Your task to perform on an android device: uninstall "The Home Depot" Image 0: 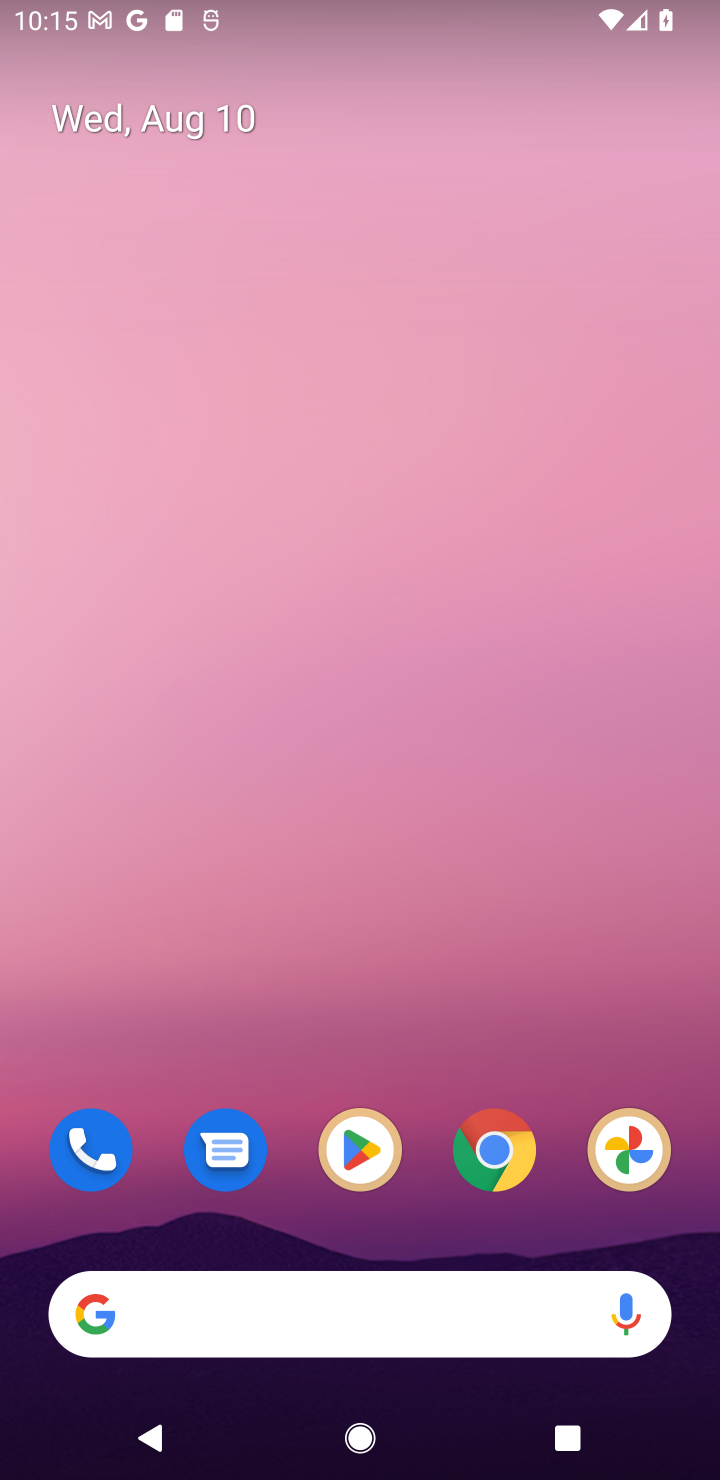
Step 0: click (360, 1137)
Your task to perform on an android device: uninstall "The Home Depot" Image 1: 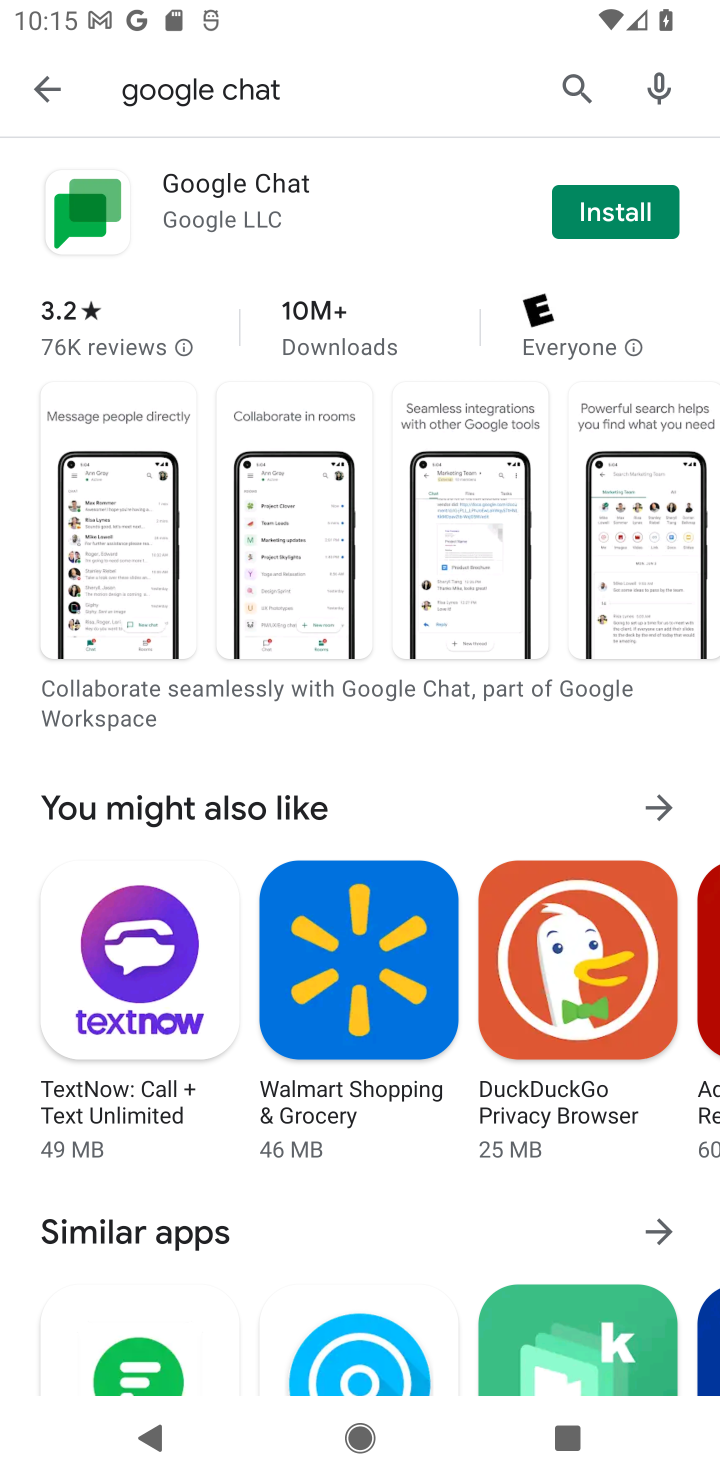
Step 1: click (569, 71)
Your task to perform on an android device: uninstall "The Home Depot" Image 2: 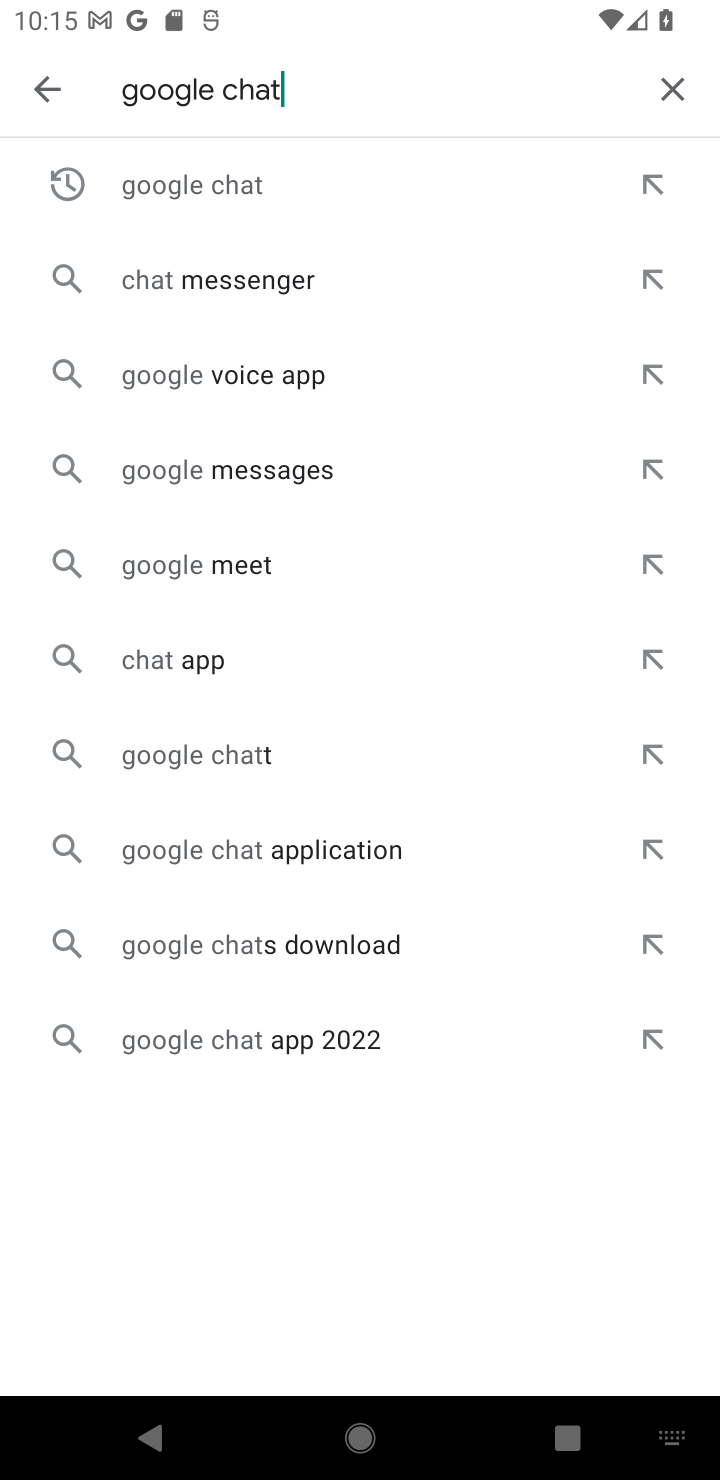
Step 2: click (653, 89)
Your task to perform on an android device: uninstall "The Home Depot" Image 3: 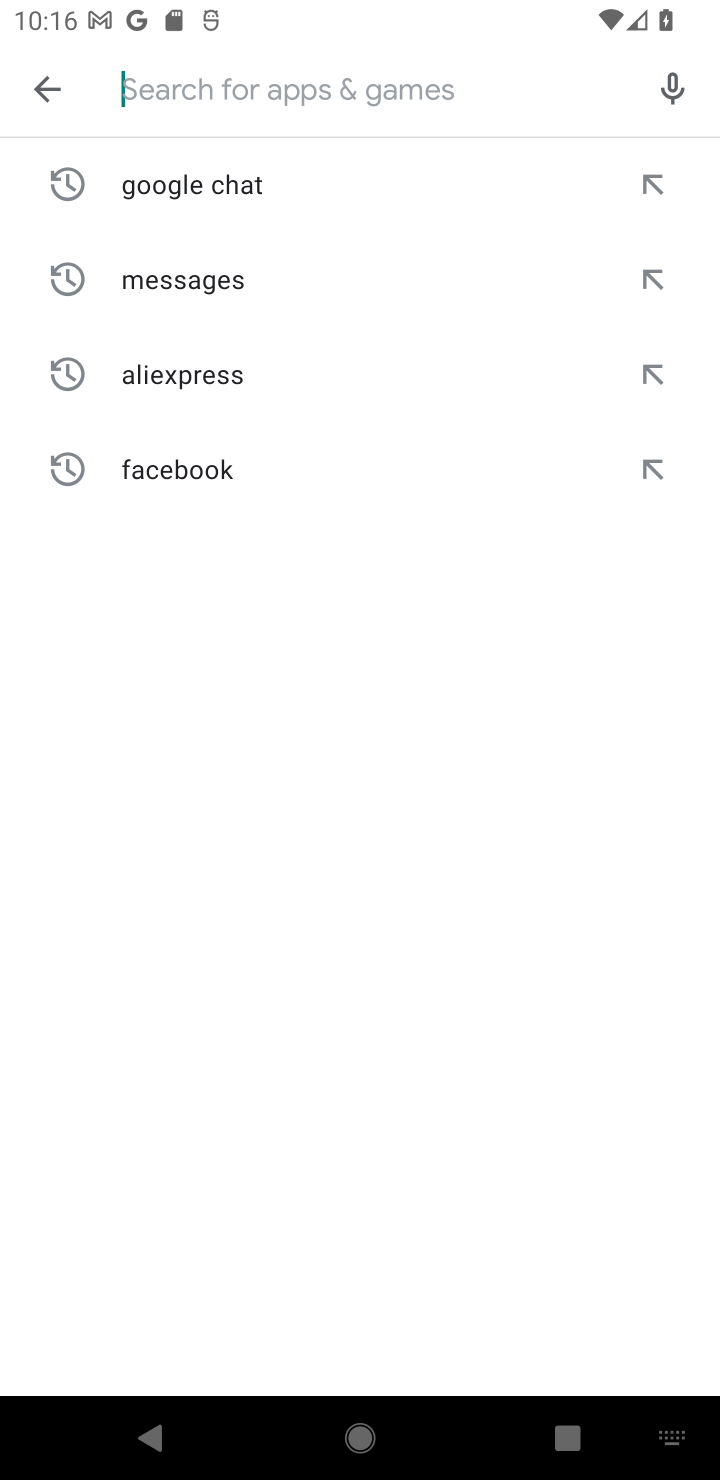
Step 3: type "The Home Depot"
Your task to perform on an android device: uninstall "The Home Depot" Image 4: 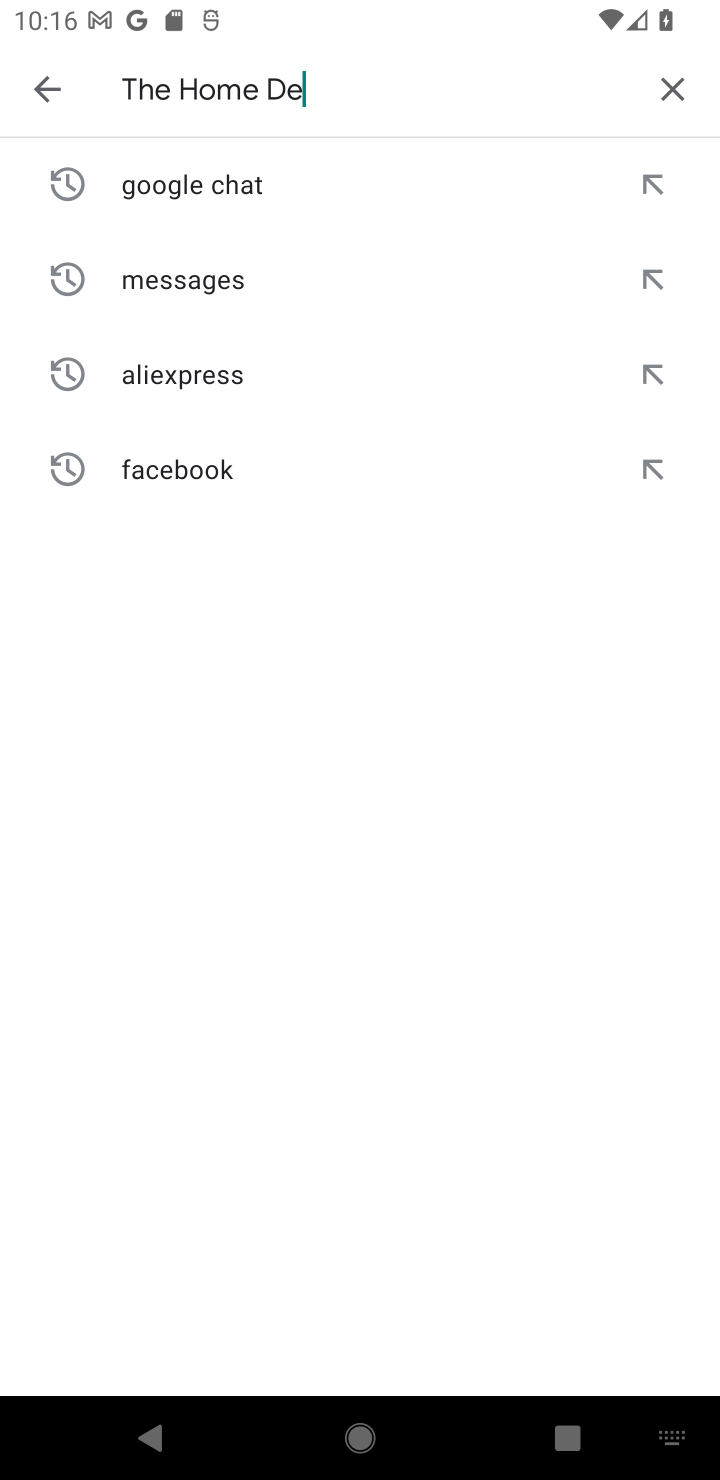
Step 4: type ""
Your task to perform on an android device: uninstall "The Home Depot" Image 5: 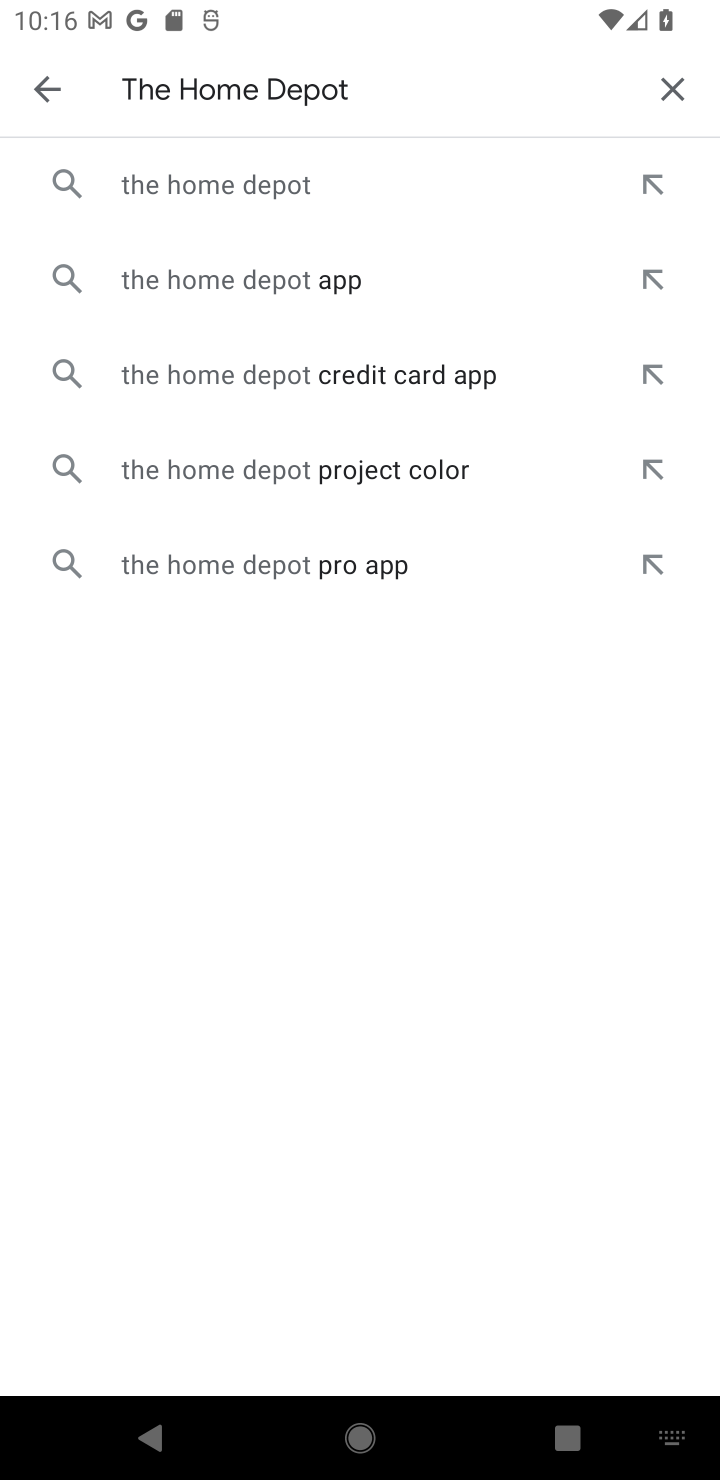
Step 5: click (403, 170)
Your task to perform on an android device: uninstall "The Home Depot" Image 6: 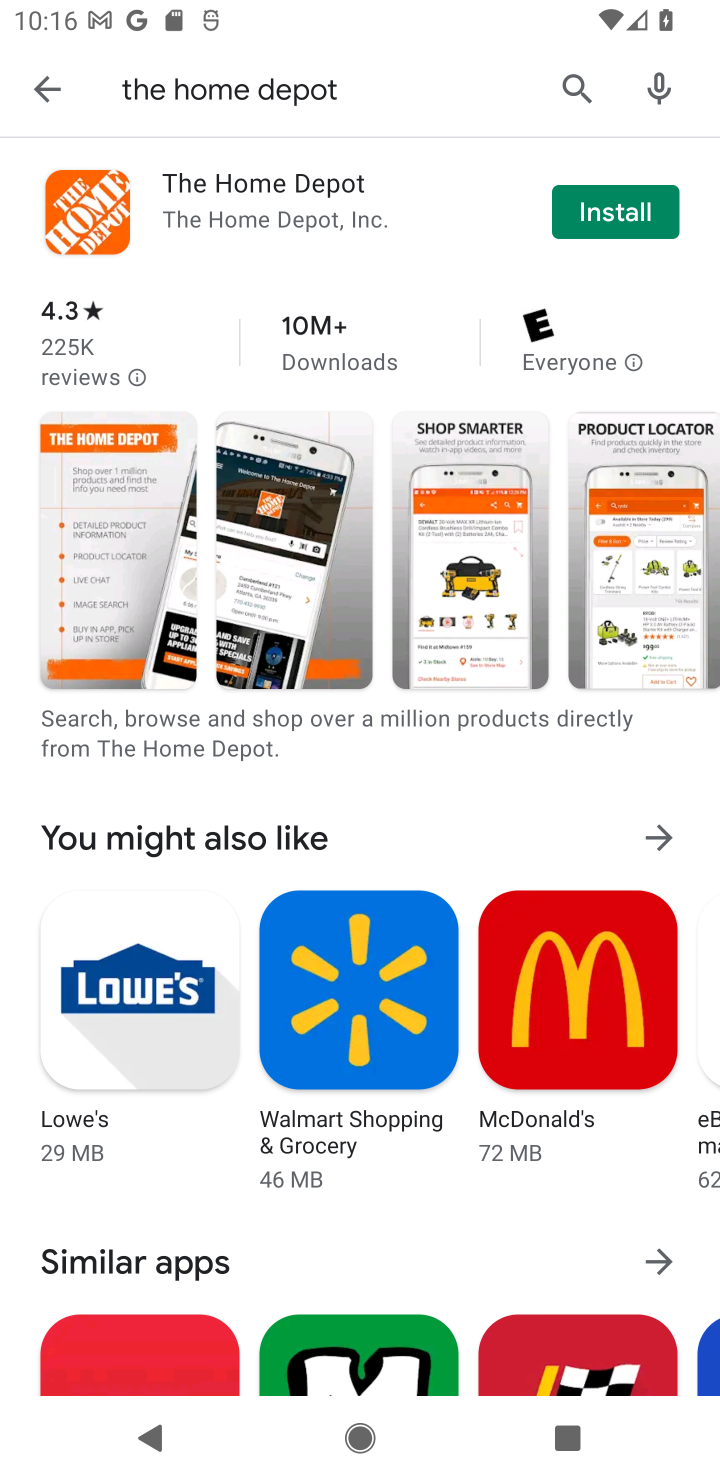
Step 6: click (403, 170)
Your task to perform on an android device: uninstall "The Home Depot" Image 7: 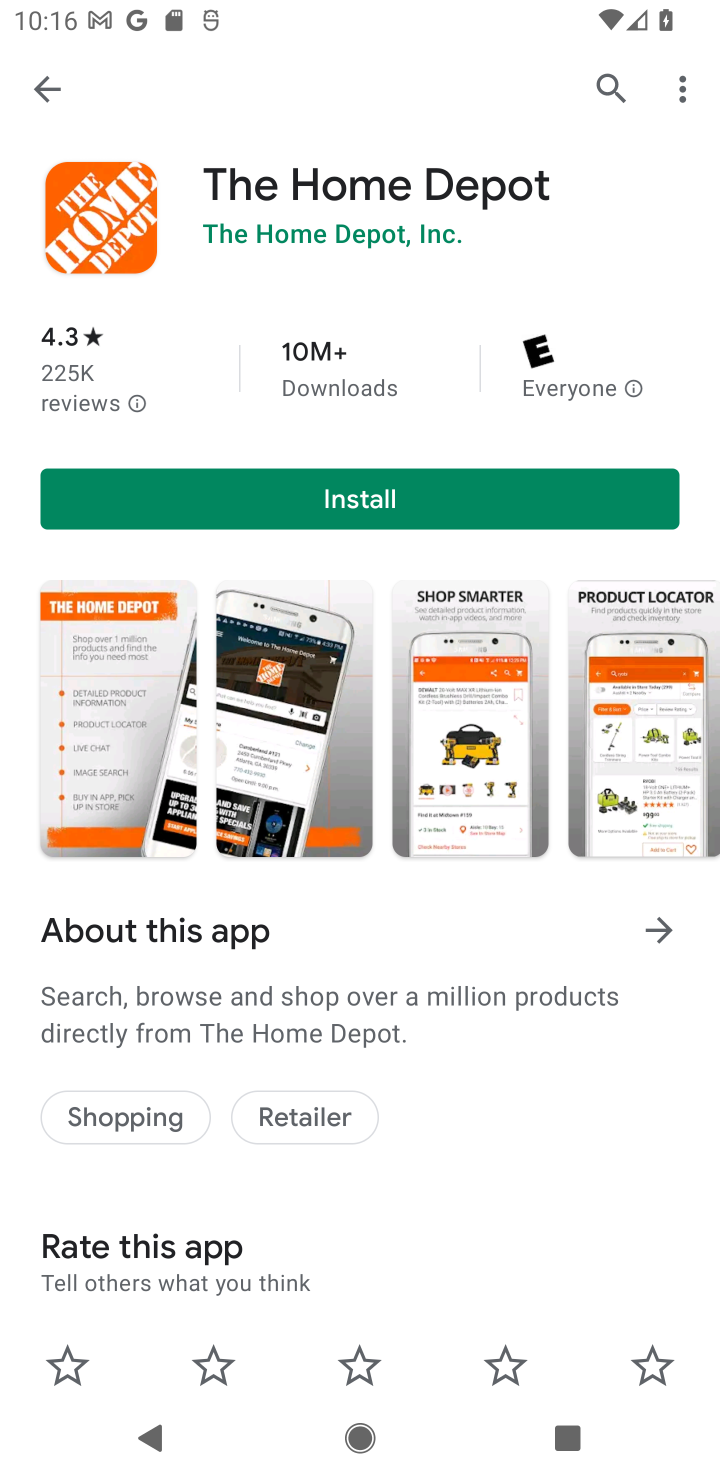
Step 7: task complete